Your task to perform on an android device: turn off translation in the chrome app Image 0: 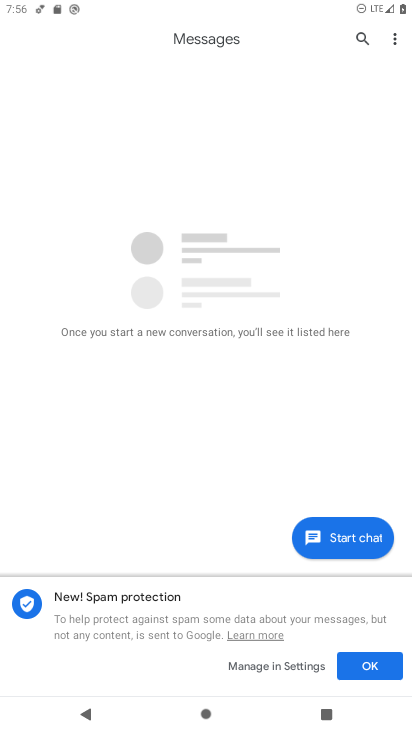
Step 0: press home button
Your task to perform on an android device: turn off translation in the chrome app Image 1: 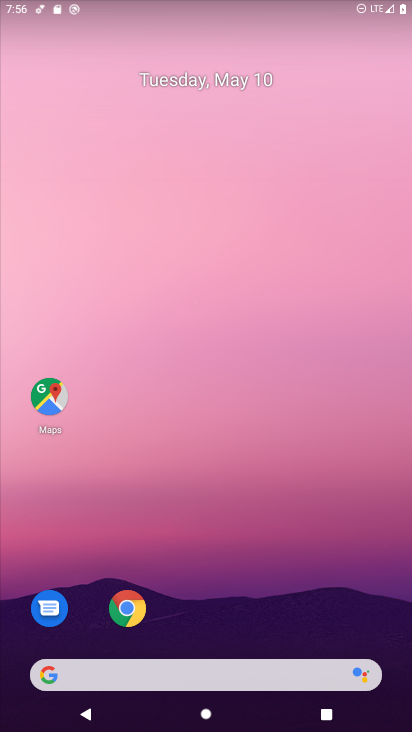
Step 1: drag from (261, 597) to (274, 310)
Your task to perform on an android device: turn off translation in the chrome app Image 2: 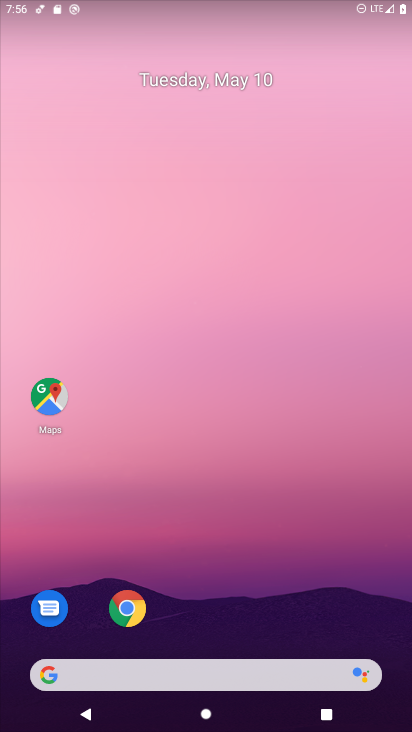
Step 2: drag from (236, 604) to (259, 282)
Your task to perform on an android device: turn off translation in the chrome app Image 3: 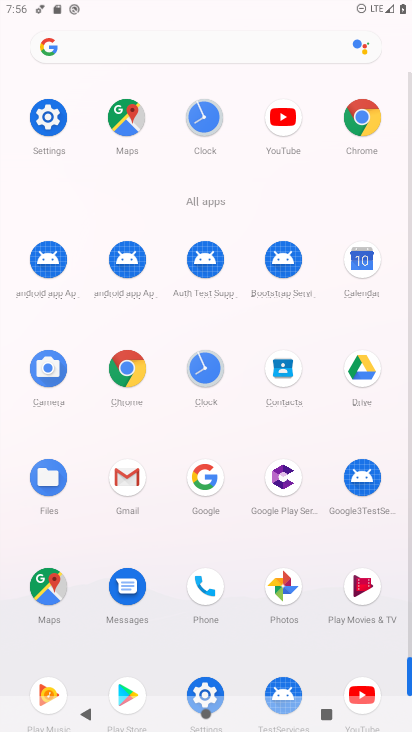
Step 3: click (349, 121)
Your task to perform on an android device: turn off translation in the chrome app Image 4: 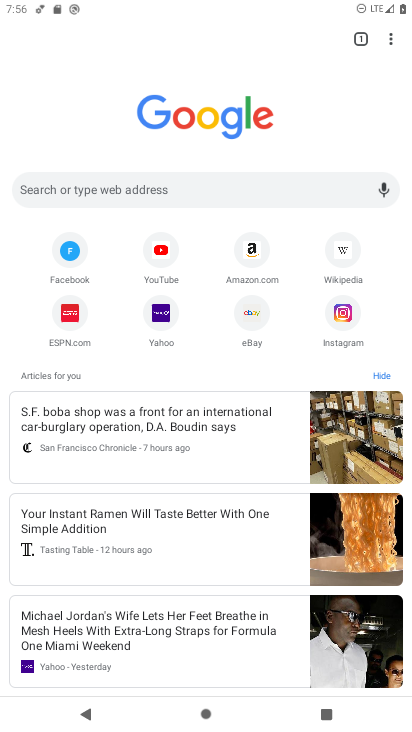
Step 4: click (384, 40)
Your task to perform on an android device: turn off translation in the chrome app Image 5: 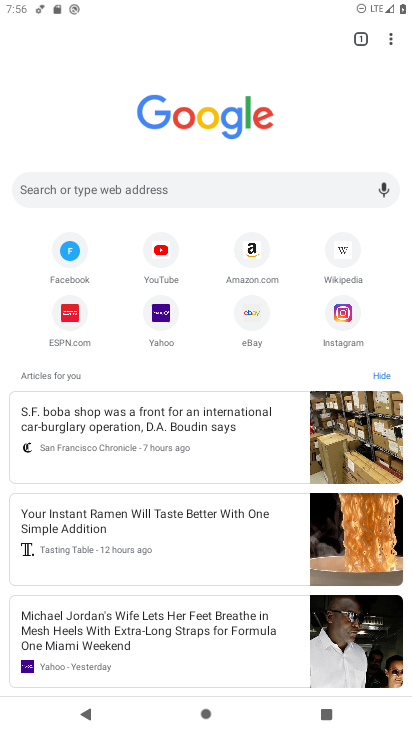
Step 5: click (384, 40)
Your task to perform on an android device: turn off translation in the chrome app Image 6: 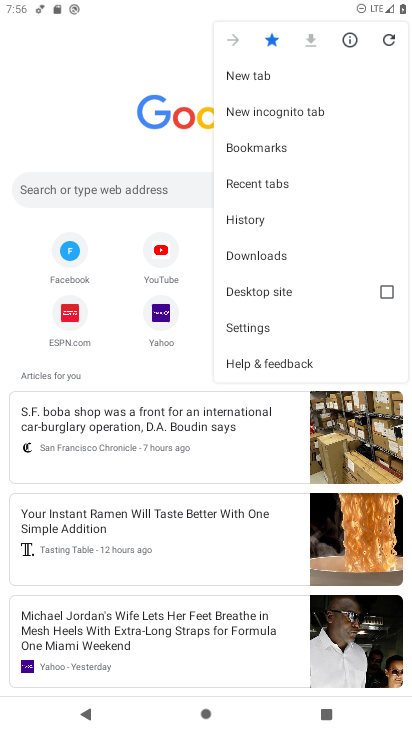
Step 6: click (255, 329)
Your task to perform on an android device: turn off translation in the chrome app Image 7: 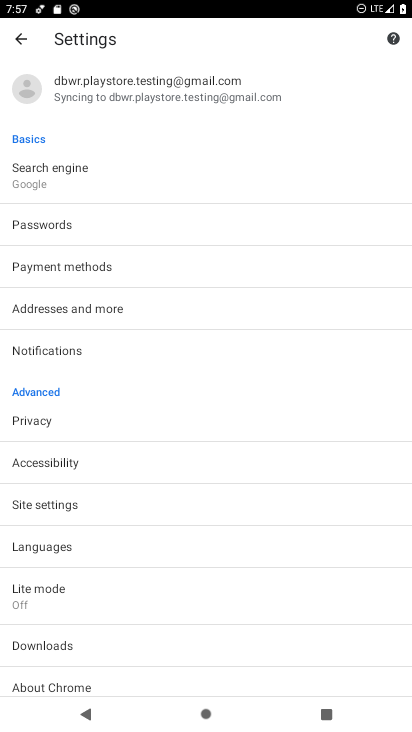
Step 7: click (69, 552)
Your task to perform on an android device: turn off translation in the chrome app Image 8: 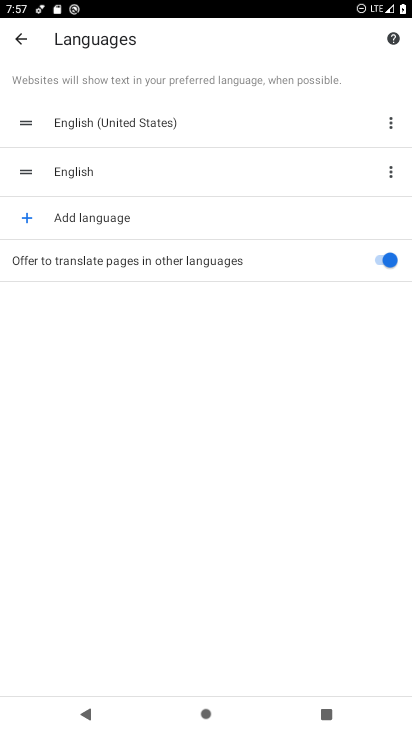
Step 8: click (375, 257)
Your task to perform on an android device: turn off translation in the chrome app Image 9: 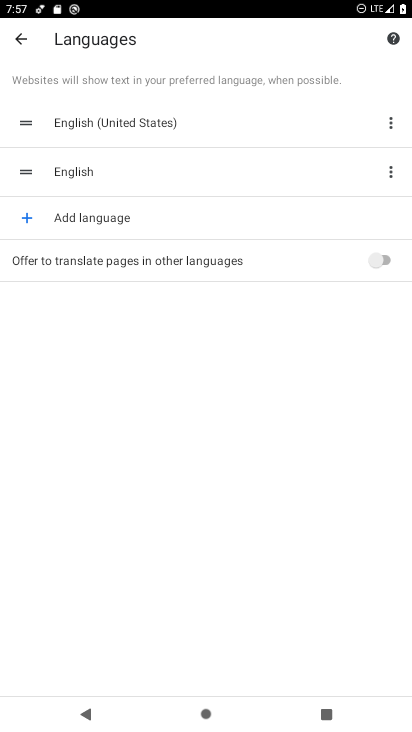
Step 9: task complete